Your task to perform on an android device: Clear the cart on walmart.com. Add dell xps to the cart on walmart.com, then select checkout. Image 0: 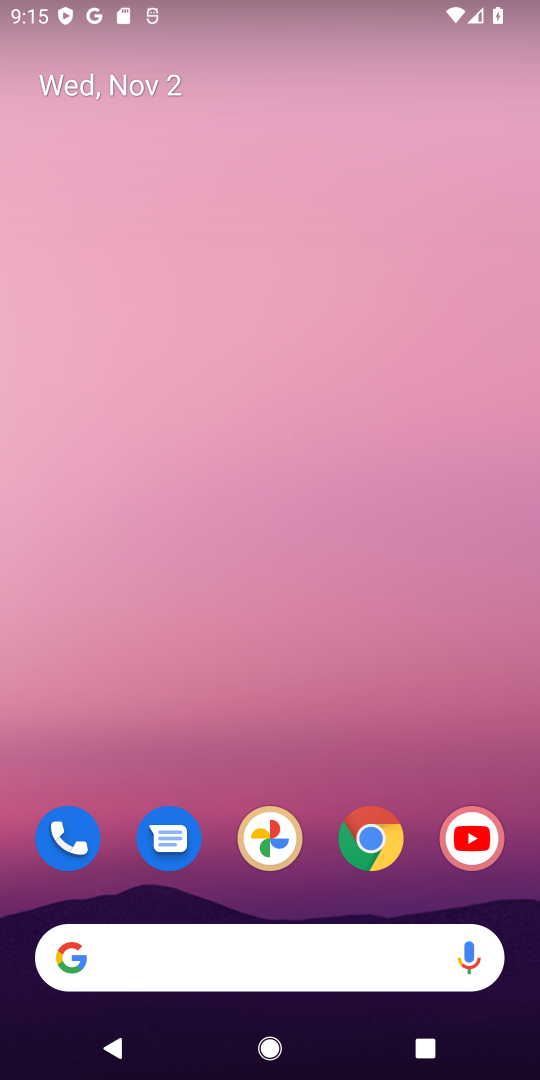
Step 0: click (30, 918)
Your task to perform on an android device: Clear the cart on walmart.com. Add dell xps to the cart on walmart.com, then select checkout. Image 1: 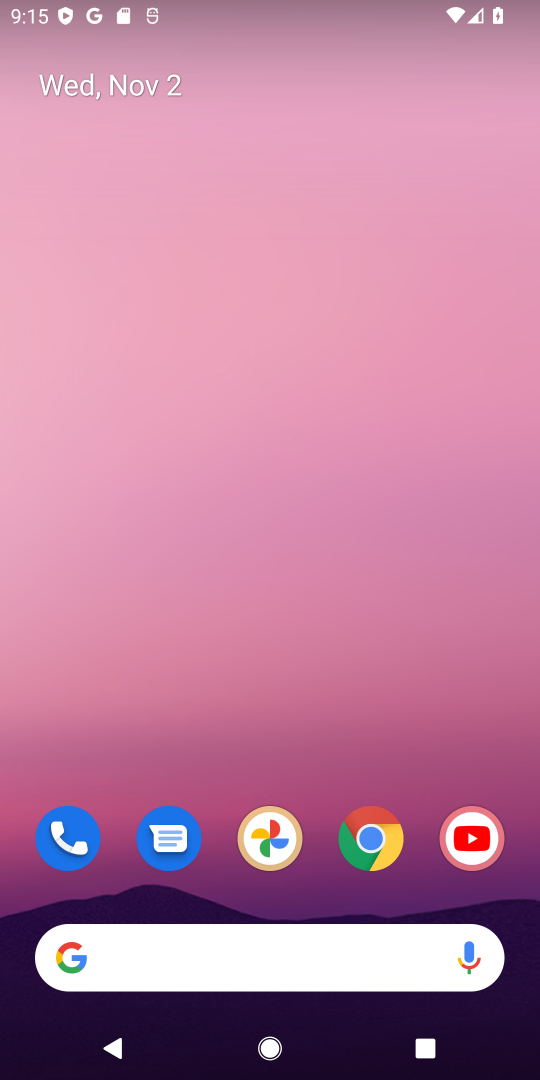
Step 1: click (363, 829)
Your task to perform on an android device: Clear the cart on walmart.com. Add dell xps to the cart on walmart.com, then select checkout. Image 2: 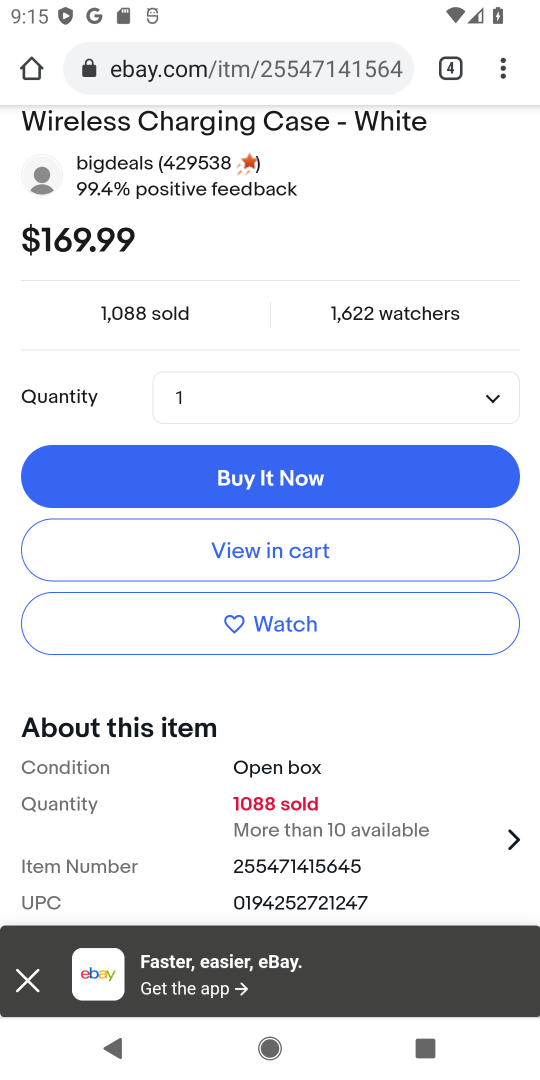
Step 2: click (455, 61)
Your task to perform on an android device: Clear the cart on walmart.com. Add dell xps to the cart on walmart.com, then select checkout. Image 3: 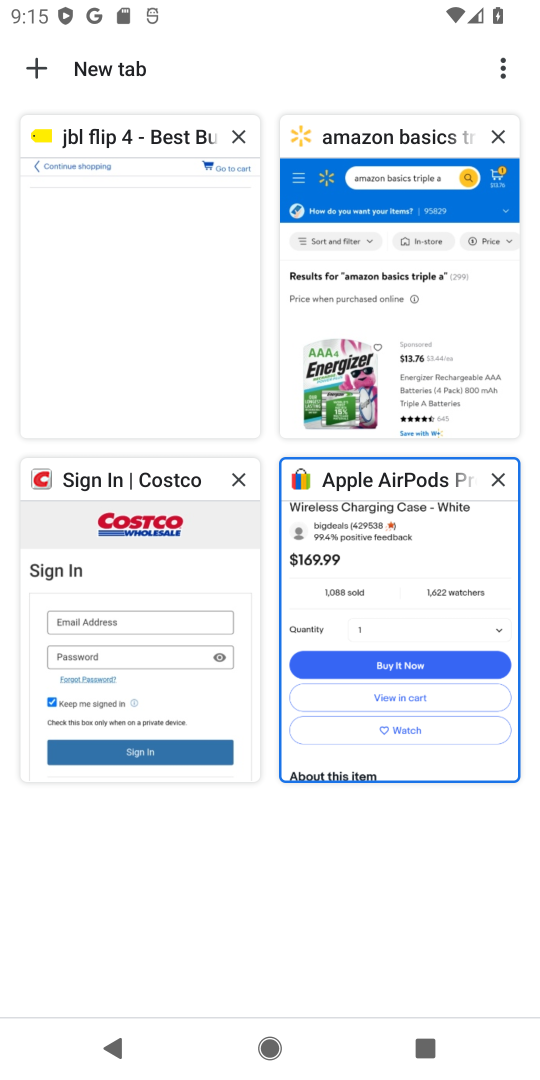
Step 3: click (336, 293)
Your task to perform on an android device: Clear the cart on walmart.com. Add dell xps to the cart on walmart.com, then select checkout. Image 4: 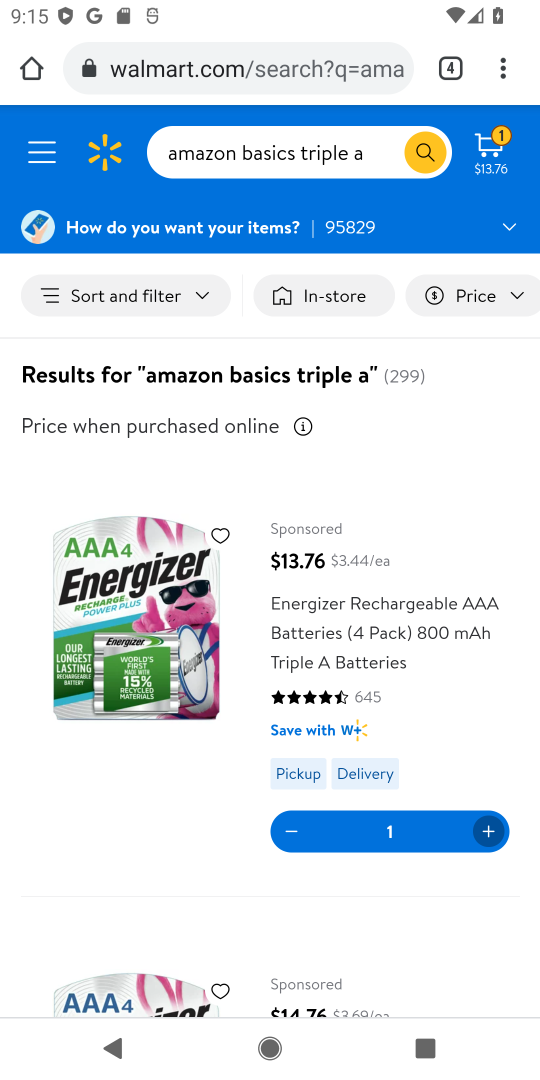
Step 4: click (360, 145)
Your task to perform on an android device: Clear the cart on walmart.com. Add dell xps to the cart on walmart.com, then select checkout. Image 5: 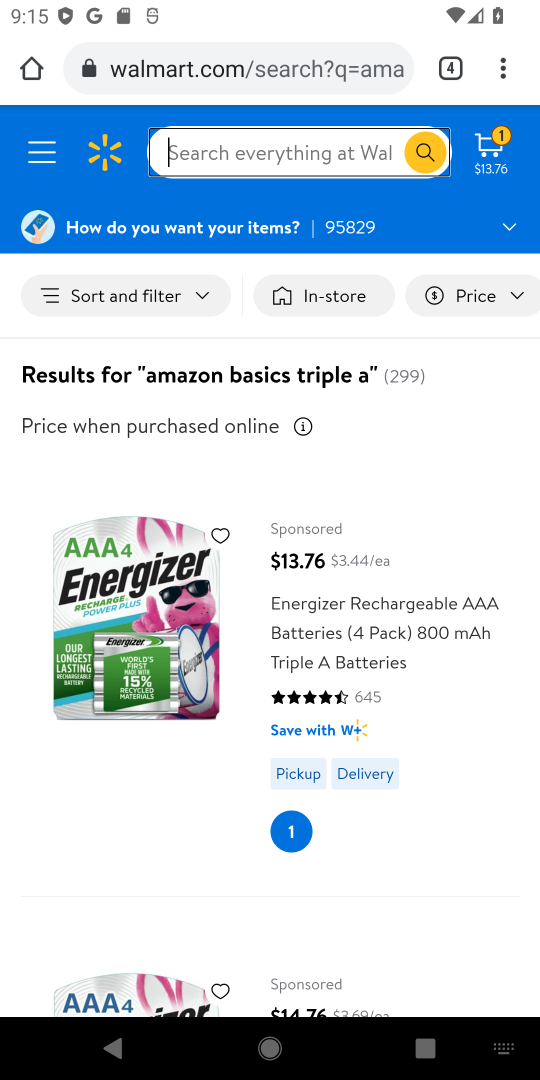
Step 5: type "dell xps"
Your task to perform on an android device: Clear the cart on walmart.com. Add dell xps to the cart on walmart.com, then select checkout. Image 6: 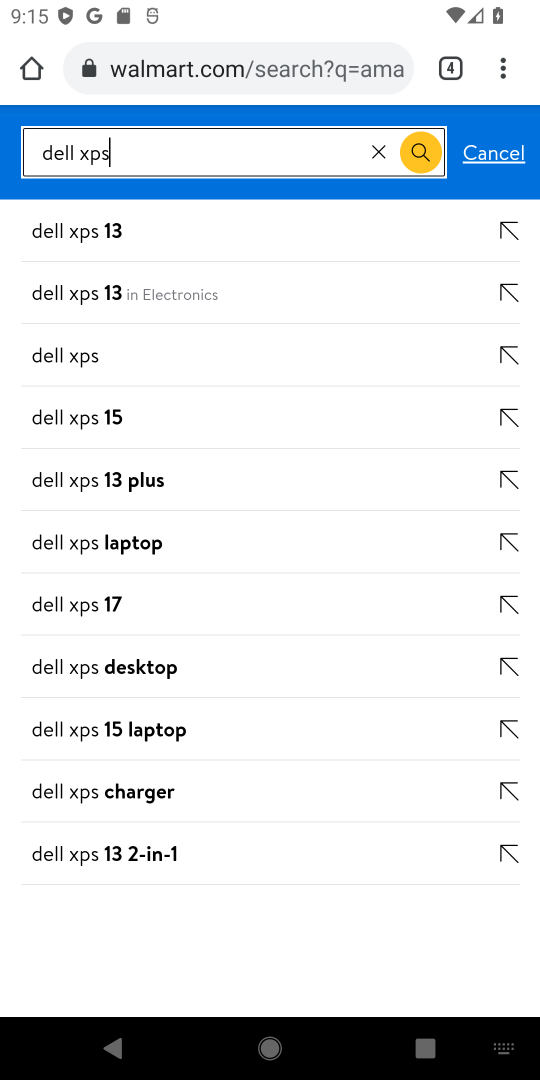
Step 6: click (360, 297)
Your task to perform on an android device: Clear the cart on walmart.com. Add dell xps to the cart on walmart.com, then select checkout. Image 7: 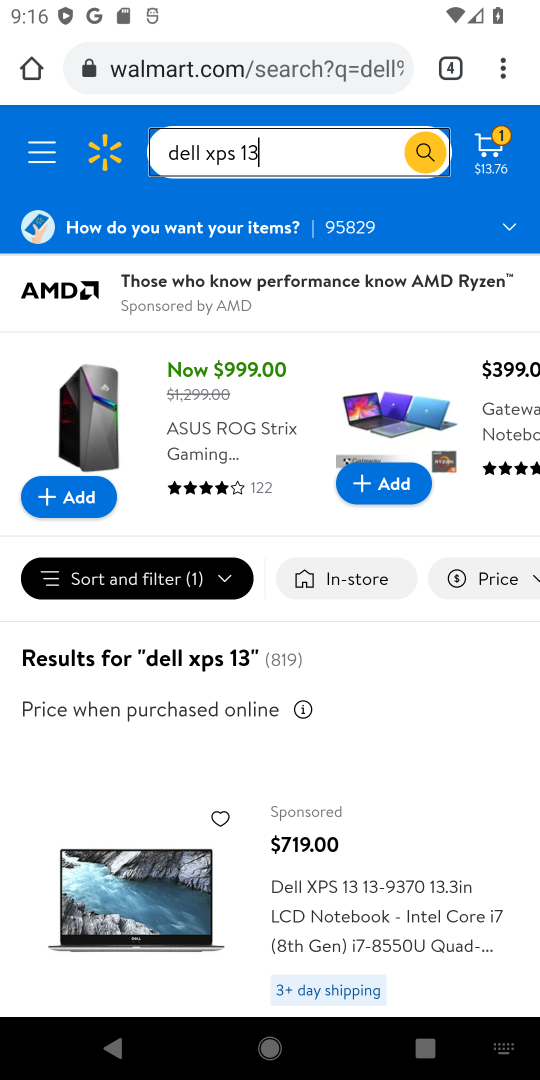
Step 7: click (54, 498)
Your task to perform on an android device: Clear the cart on walmart.com. Add dell xps to the cart on walmart.com, then select checkout. Image 8: 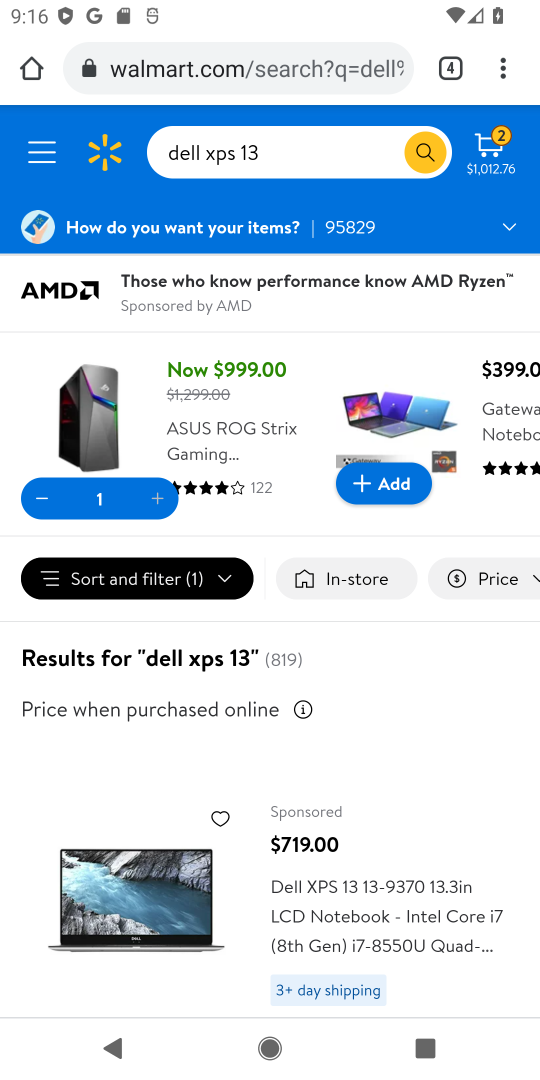
Step 8: task complete